Your task to perform on an android device: show emergency info Image 0: 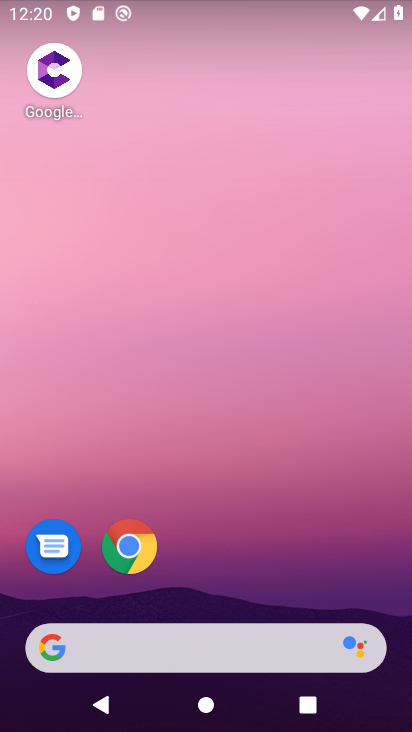
Step 0: drag from (221, 666) to (279, 9)
Your task to perform on an android device: show emergency info Image 1: 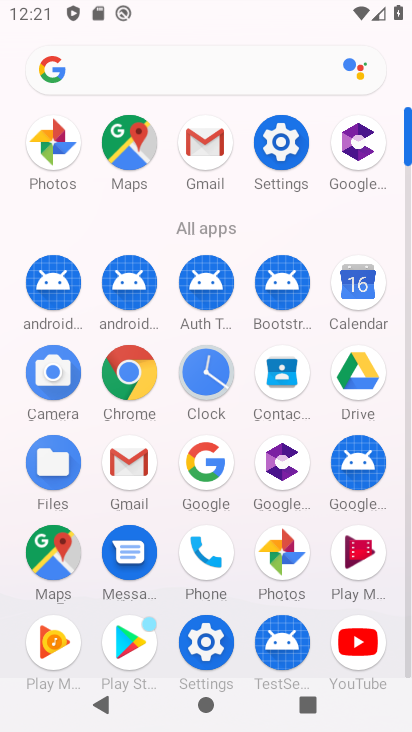
Step 1: click (268, 146)
Your task to perform on an android device: show emergency info Image 2: 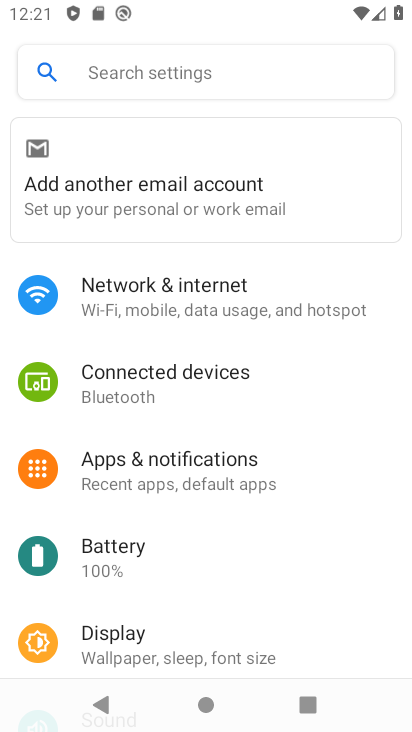
Step 2: click (153, 71)
Your task to perform on an android device: show emergency info Image 3: 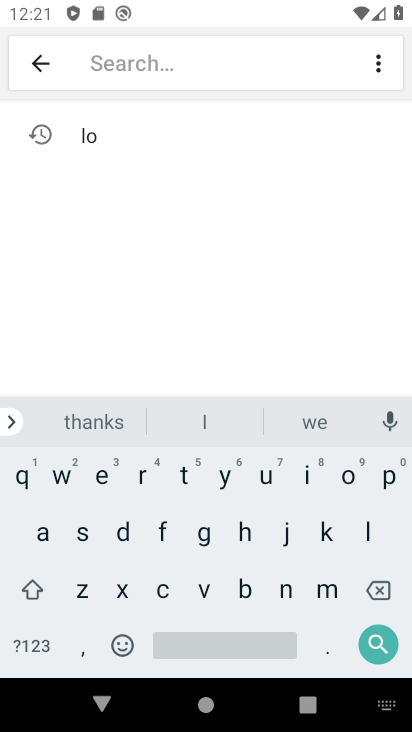
Step 3: click (105, 489)
Your task to perform on an android device: show emergency info Image 4: 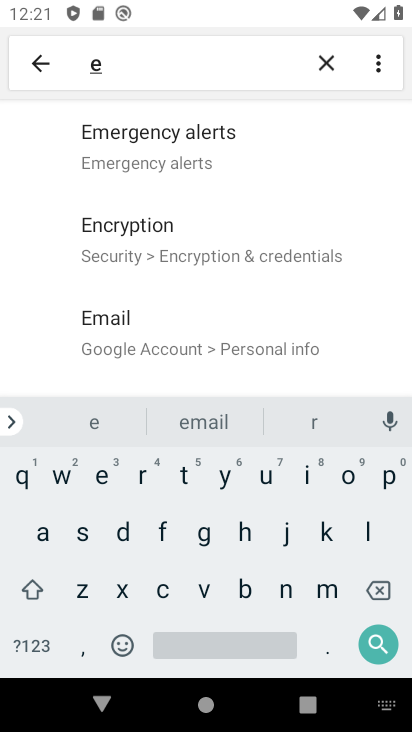
Step 4: click (328, 583)
Your task to perform on an android device: show emergency info Image 5: 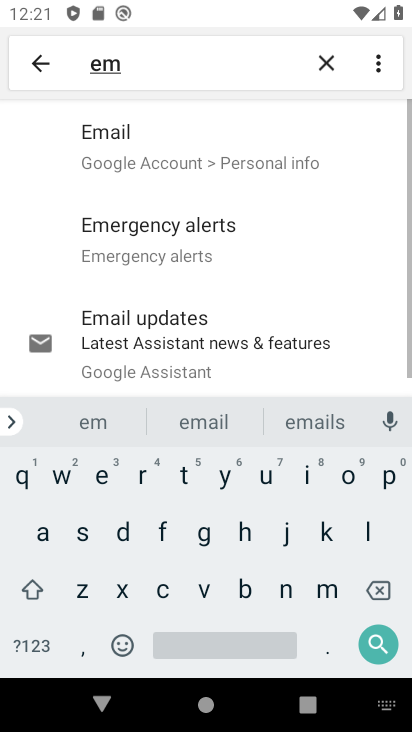
Step 5: click (102, 473)
Your task to perform on an android device: show emergency info Image 6: 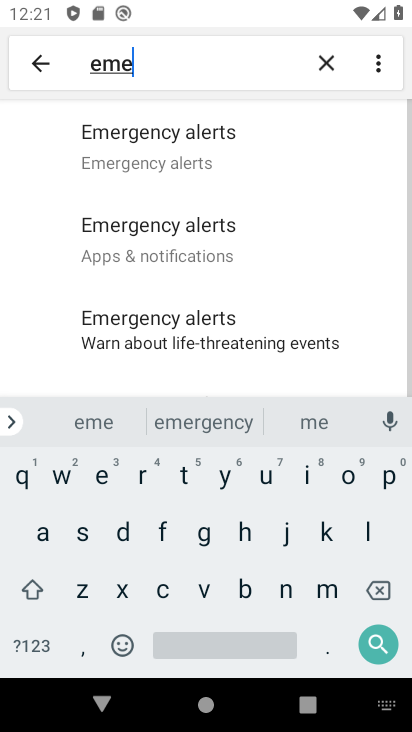
Step 6: click (171, 424)
Your task to perform on an android device: show emergency info Image 7: 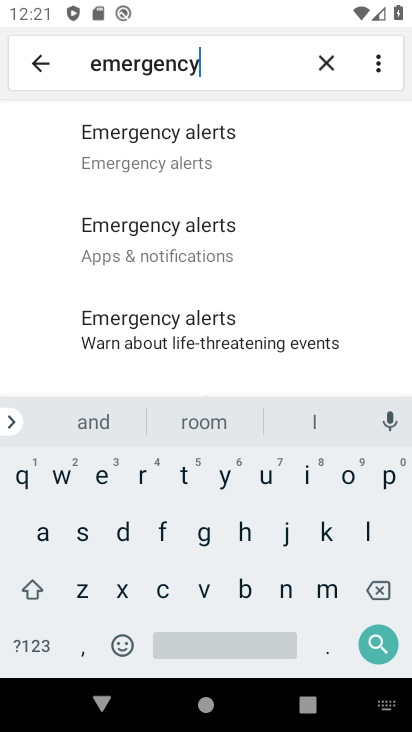
Step 7: click (308, 478)
Your task to perform on an android device: show emergency info Image 8: 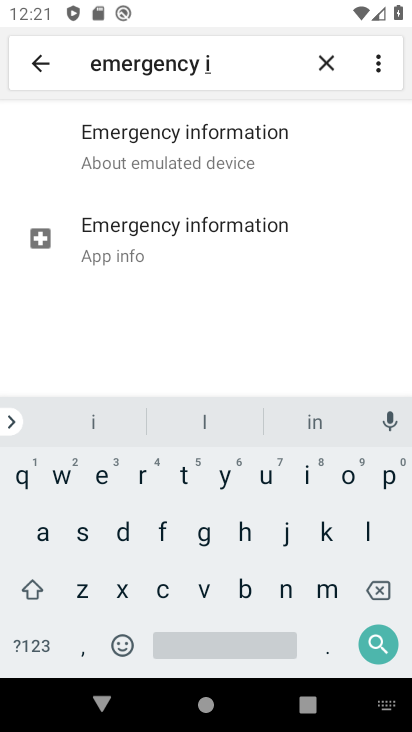
Step 8: click (308, 478)
Your task to perform on an android device: show emergency info Image 9: 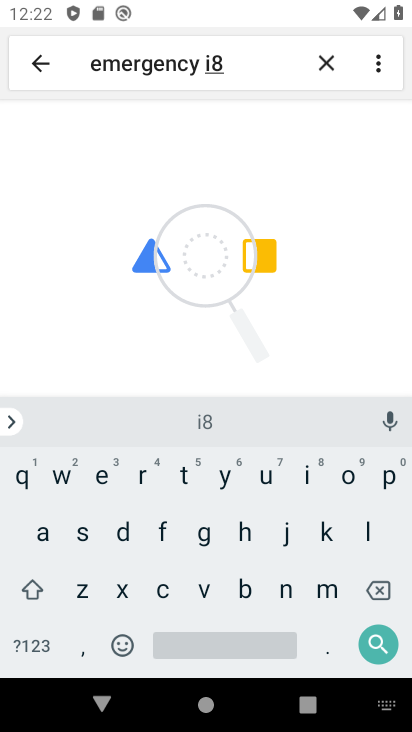
Step 9: click (384, 587)
Your task to perform on an android device: show emergency info Image 10: 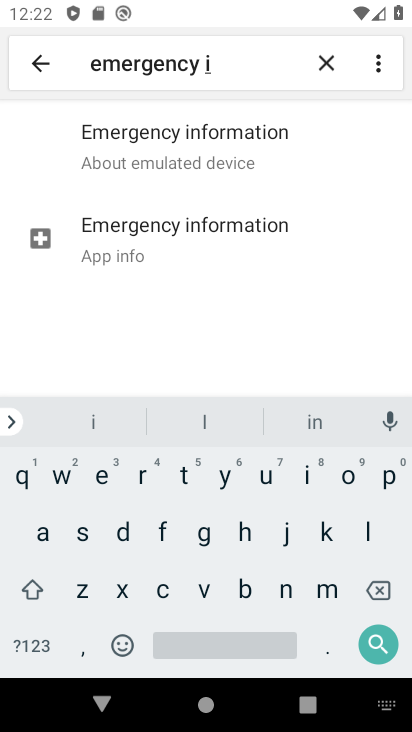
Step 10: click (241, 148)
Your task to perform on an android device: show emergency info Image 11: 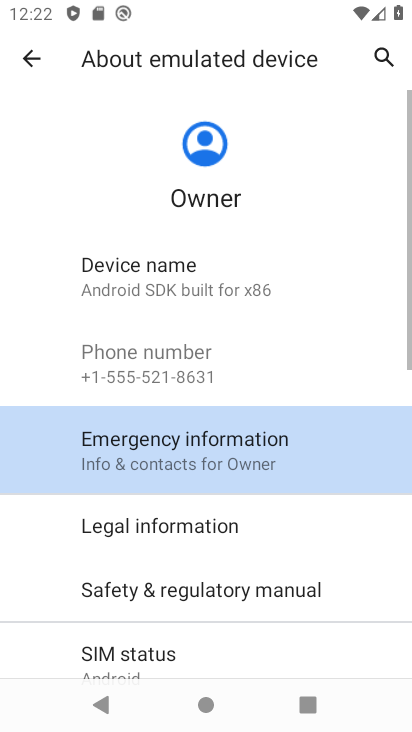
Step 11: task complete